Your task to perform on an android device: Go to Reddit.com Image 0: 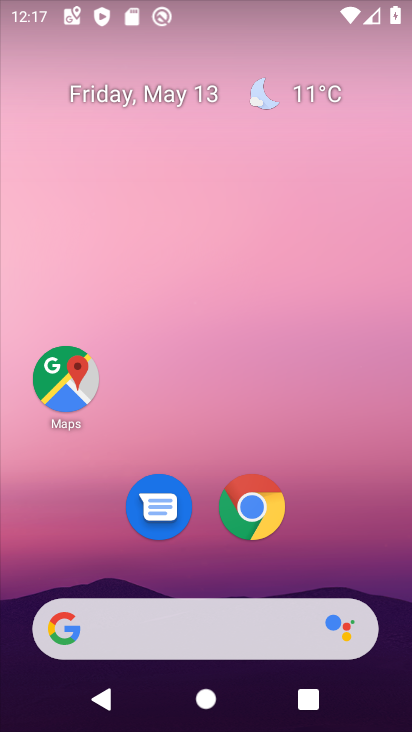
Step 0: click (252, 523)
Your task to perform on an android device: Go to Reddit.com Image 1: 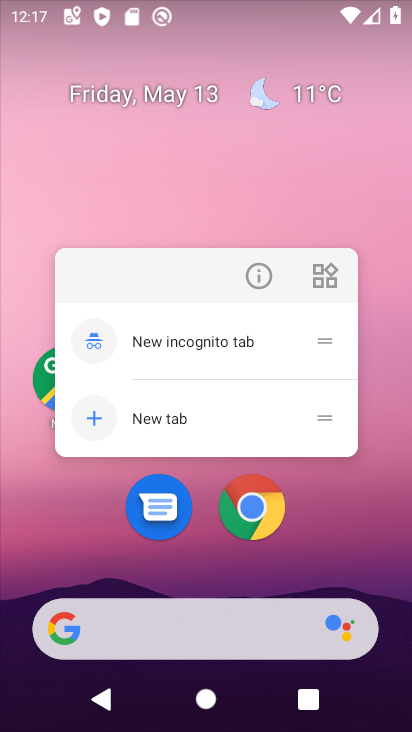
Step 1: click (261, 509)
Your task to perform on an android device: Go to Reddit.com Image 2: 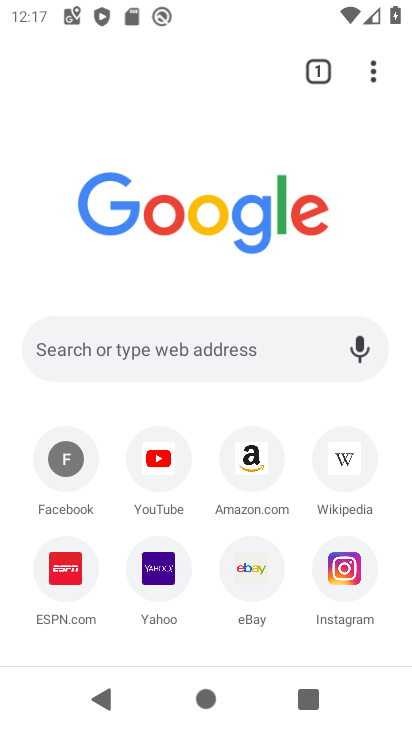
Step 2: click (202, 365)
Your task to perform on an android device: Go to Reddit.com Image 3: 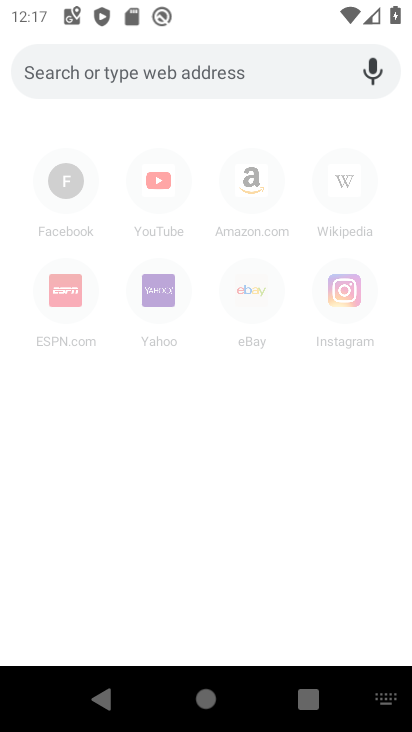
Step 3: type "reddit"
Your task to perform on an android device: Go to Reddit.com Image 4: 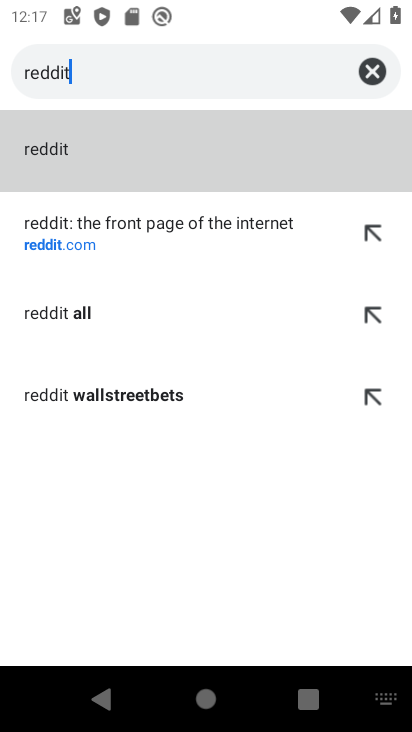
Step 4: click (97, 231)
Your task to perform on an android device: Go to Reddit.com Image 5: 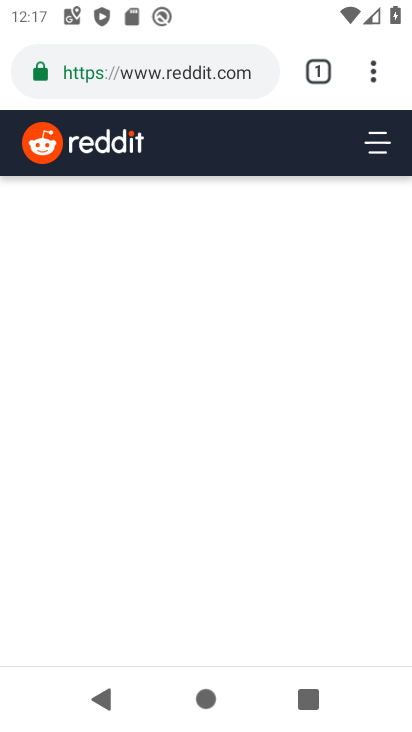
Step 5: task complete